Your task to perform on an android device: toggle translation in the chrome app Image 0: 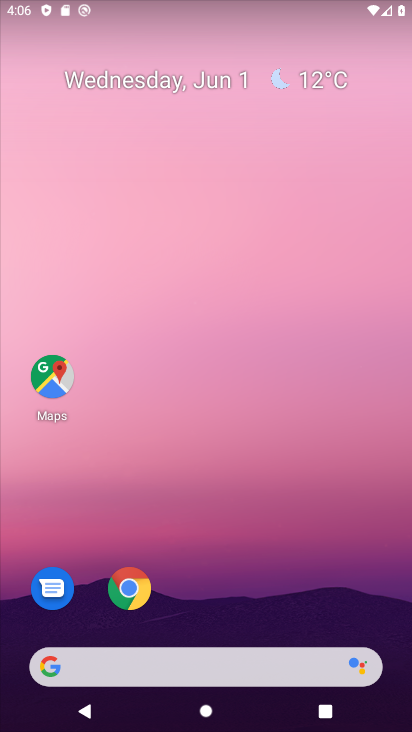
Step 0: drag from (342, 548) to (383, 16)
Your task to perform on an android device: toggle translation in the chrome app Image 1: 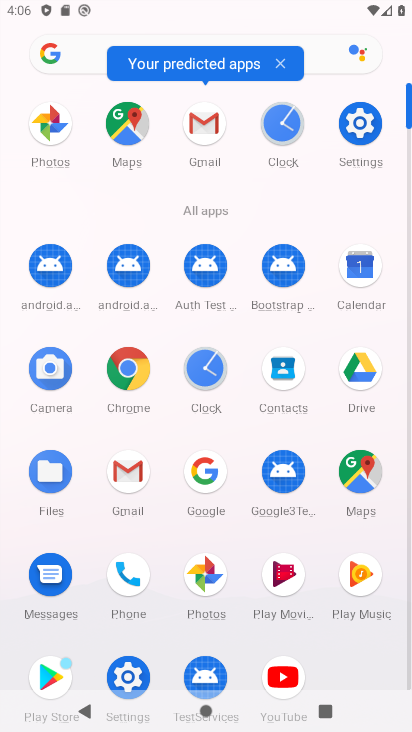
Step 1: click (117, 358)
Your task to perform on an android device: toggle translation in the chrome app Image 2: 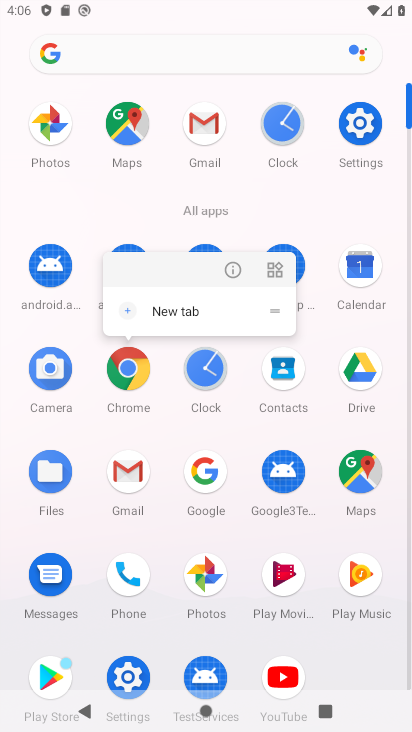
Step 2: click (130, 382)
Your task to perform on an android device: toggle translation in the chrome app Image 3: 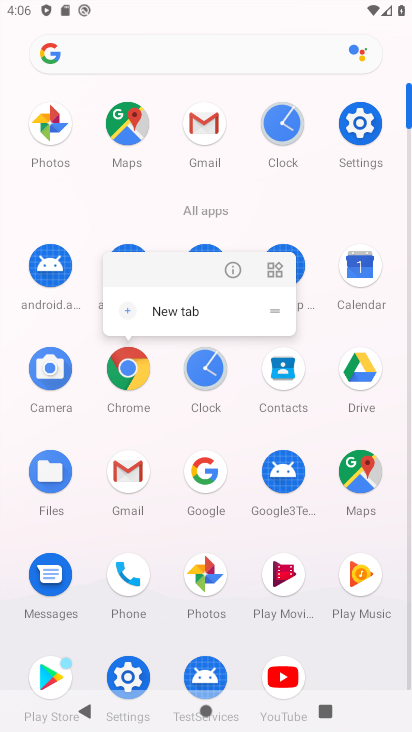
Step 3: click (130, 380)
Your task to perform on an android device: toggle translation in the chrome app Image 4: 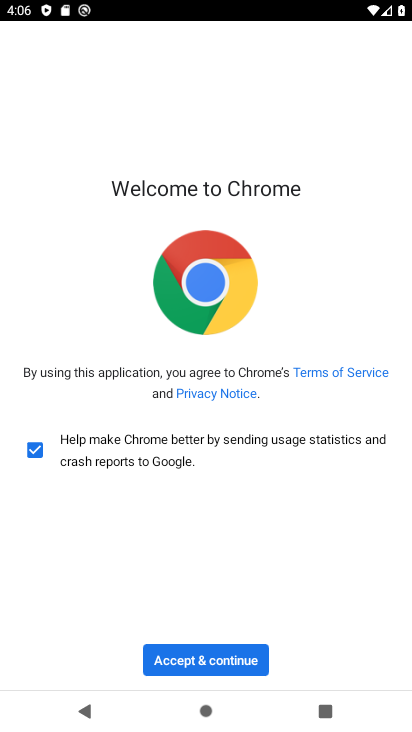
Step 4: click (203, 667)
Your task to perform on an android device: toggle translation in the chrome app Image 5: 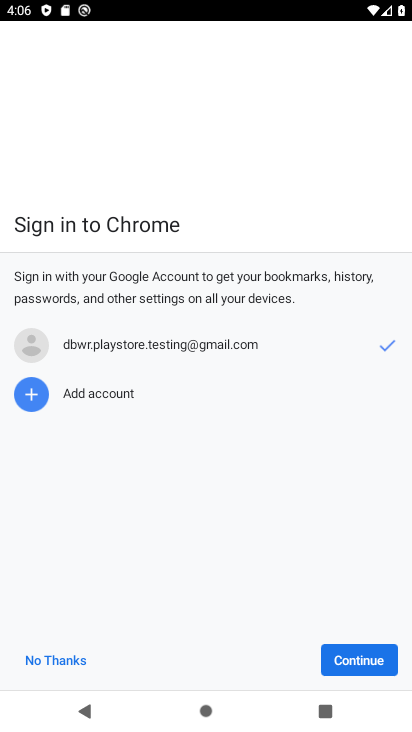
Step 5: click (62, 640)
Your task to perform on an android device: toggle translation in the chrome app Image 6: 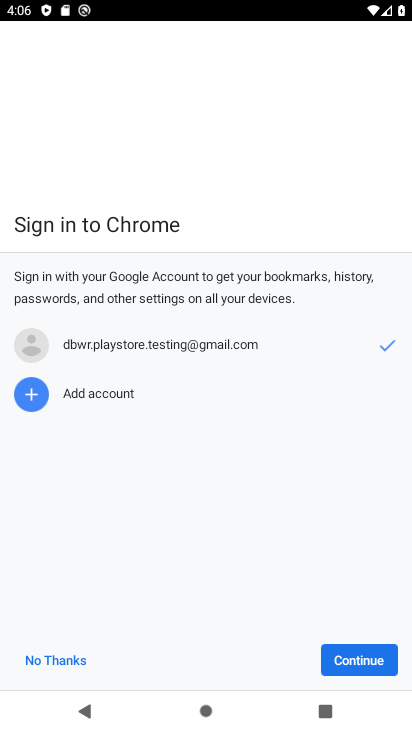
Step 6: click (48, 663)
Your task to perform on an android device: toggle translation in the chrome app Image 7: 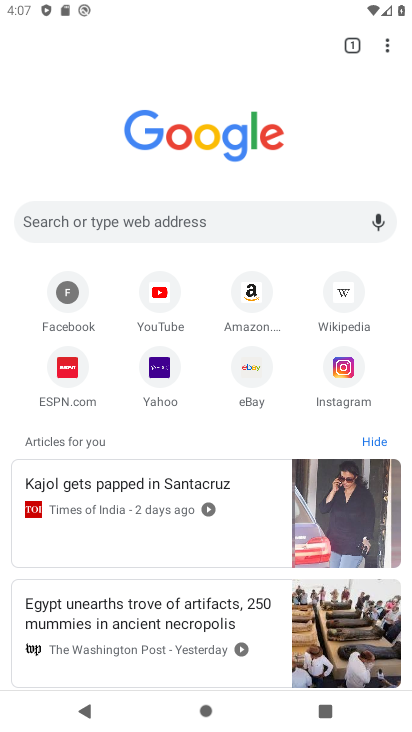
Step 7: drag from (395, 44) to (213, 387)
Your task to perform on an android device: toggle translation in the chrome app Image 8: 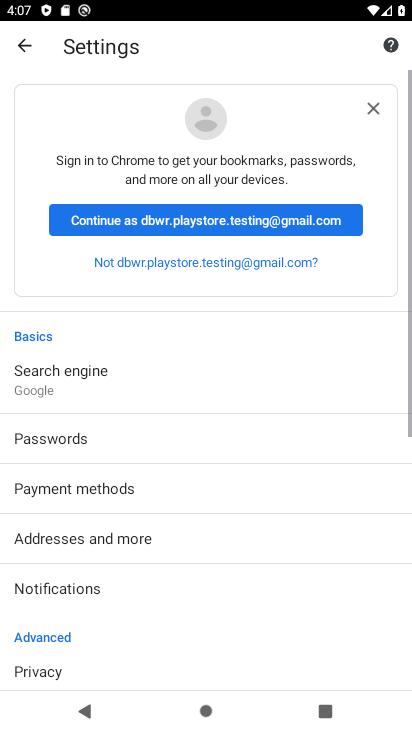
Step 8: drag from (114, 628) to (211, 256)
Your task to perform on an android device: toggle translation in the chrome app Image 9: 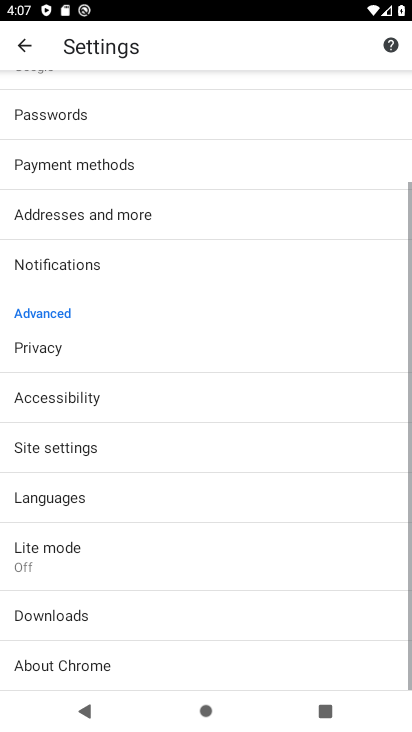
Step 9: click (75, 492)
Your task to perform on an android device: toggle translation in the chrome app Image 10: 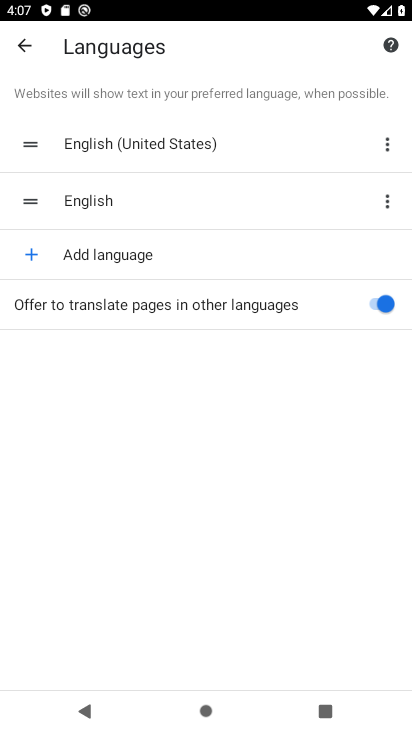
Step 10: click (388, 305)
Your task to perform on an android device: toggle translation in the chrome app Image 11: 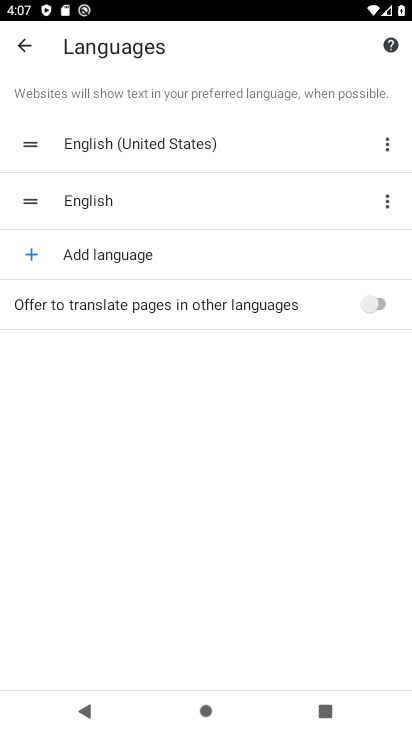
Step 11: task complete